Your task to perform on an android device: Open sound settings Image 0: 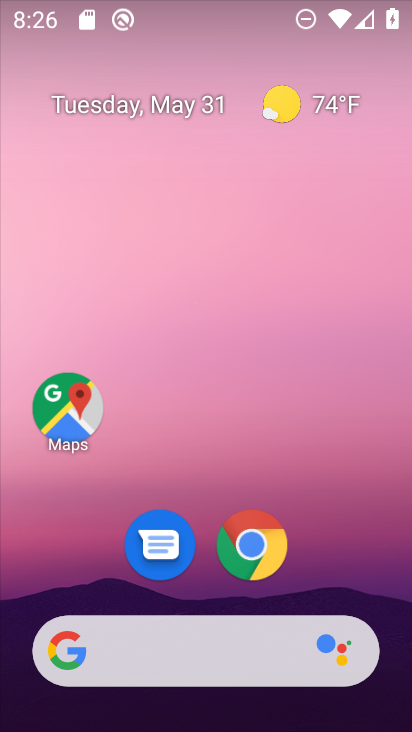
Step 0: drag from (378, 554) to (213, 6)
Your task to perform on an android device: Open sound settings Image 1: 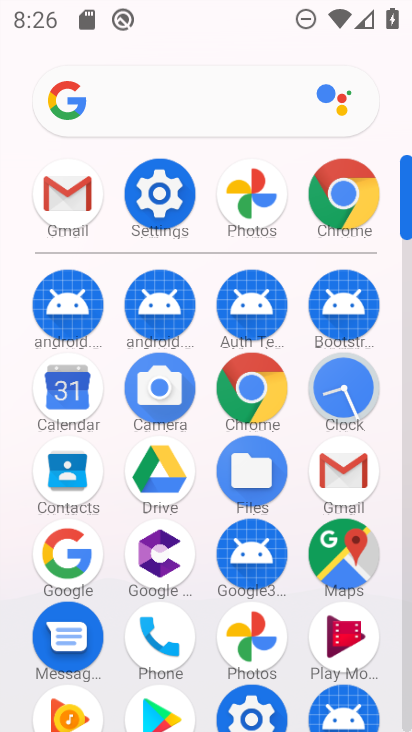
Step 1: click (161, 189)
Your task to perform on an android device: Open sound settings Image 2: 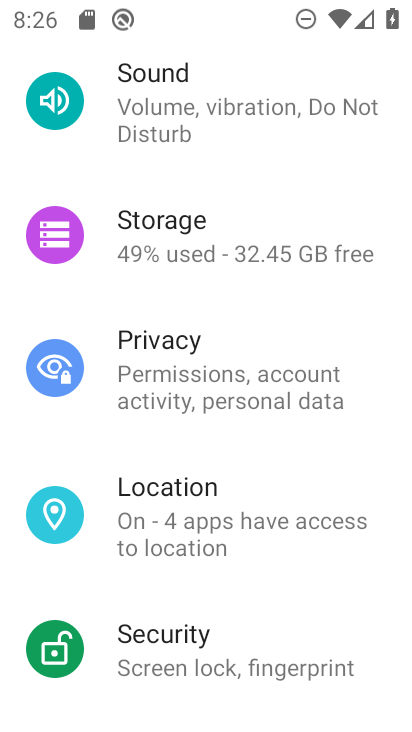
Step 2: click (193, 85)
Your task to perform on an android device: Open sound settings Image 3: 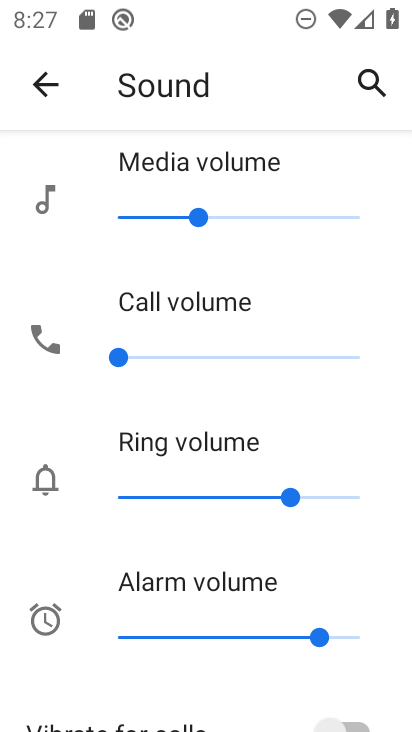
Step 3: drag from (208, 553) to (180, 144)
Your task to perform on an android device: Open sound settings Image 4: 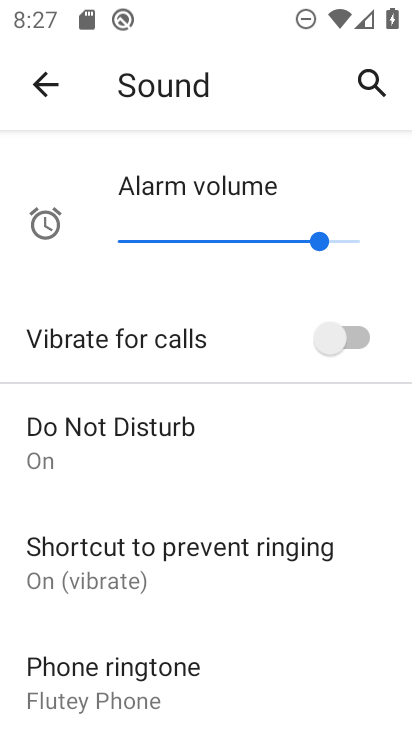
Step 4: drag from (215, 519) to (239, 172)
Your task to perform on an android device: Open sound settings Image 5: 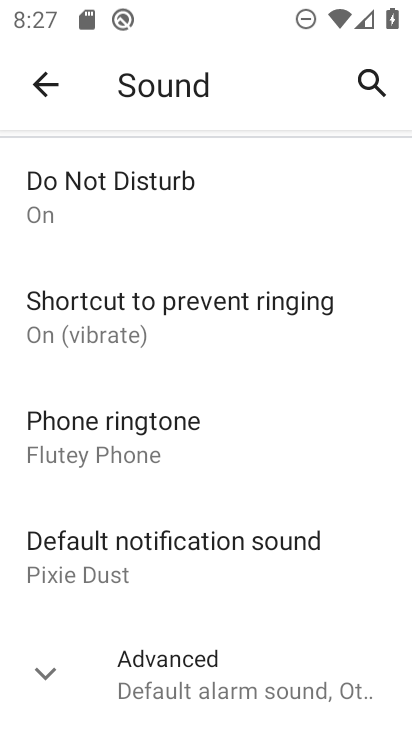
Step 5: click (54, 653)
Your task to perform on an android device: Open sound settings Image 6: 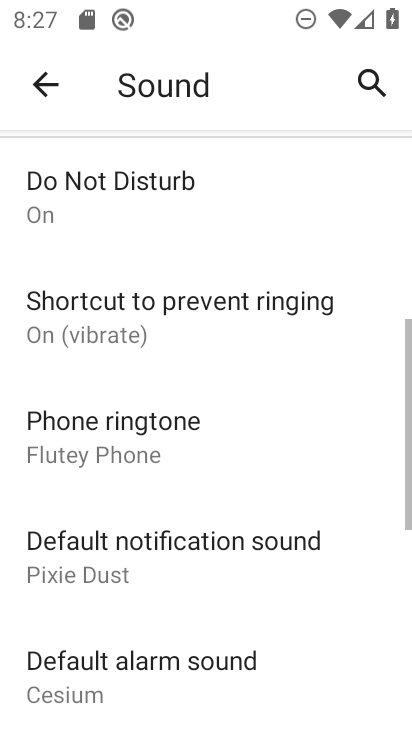
Step 6: task complete